Your task to perform on an android device: check battery use Image 0: 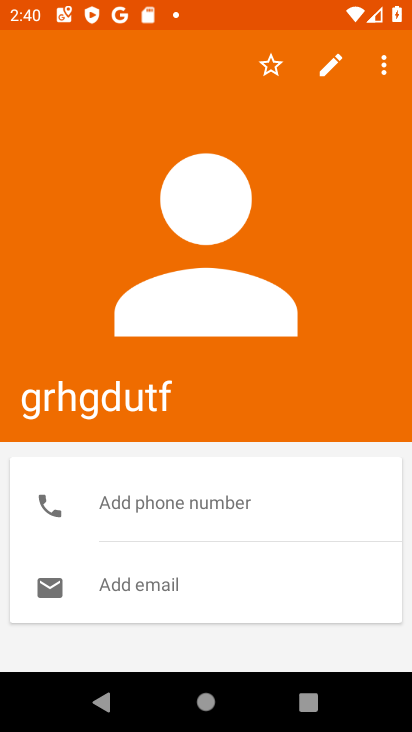
Step 0: press home button
Your task to perform on an android device: check battery use Image 1: 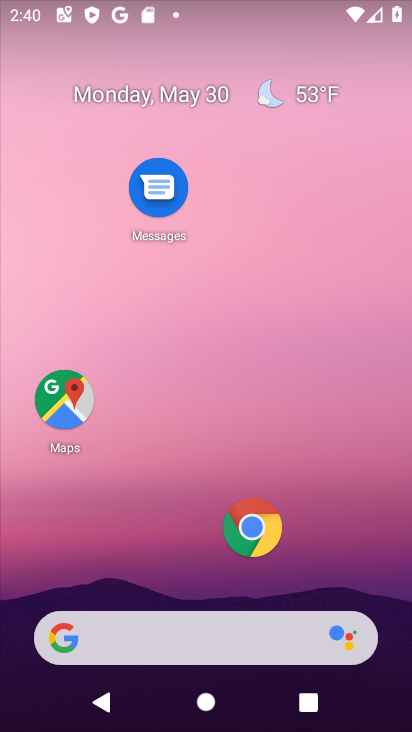
Step 1: drag from (132, 560) to (273, 83)
Your task to perform on an android device: check battery use Image 2: 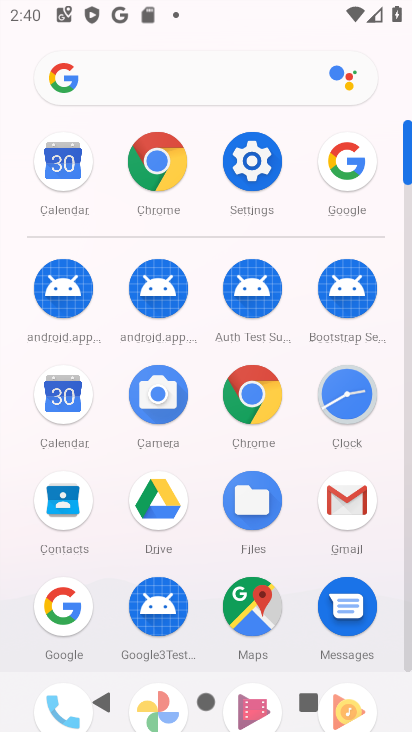
Step 2: drag from (198, 246) to (224, 0)
Your task to perform on an android device: check battery use Image 3: 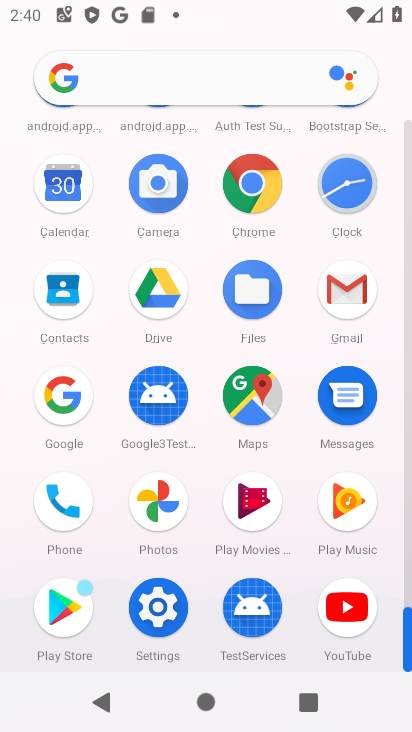
Step 3: click (159, 641)
Your task to perform on an android device: check battery use Image 4: 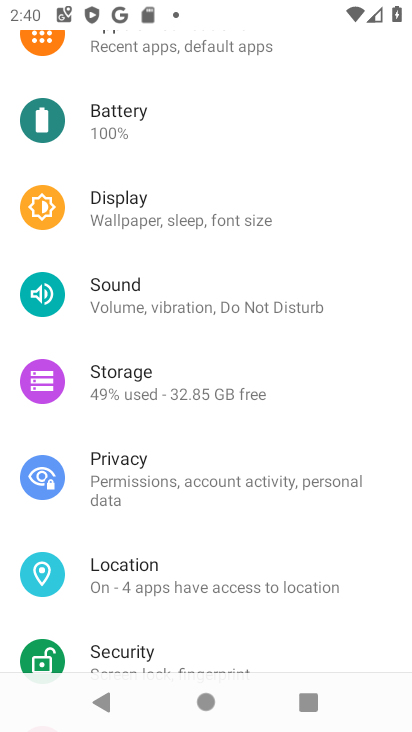
Step 4: click (144, 152)
Your task to perform on an android device: check battery use Image 5: 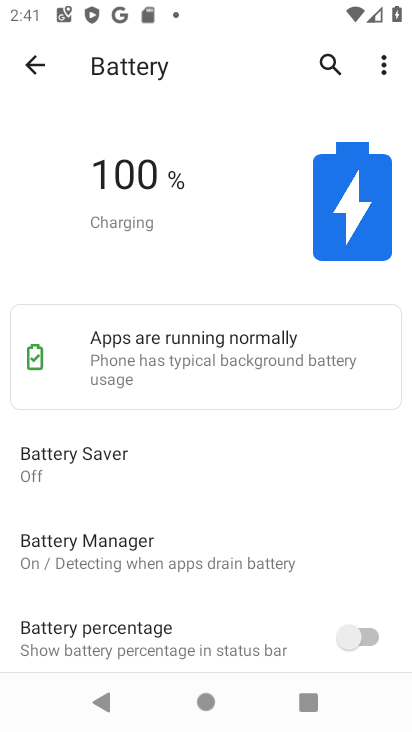
Step 5: click (389, 75)
Your task to perform on an android device: check battery use Image 6: 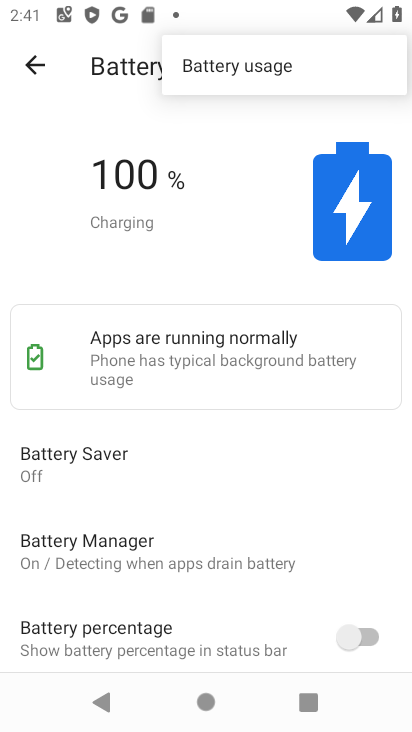
Step 6: click (294, 76)
Your task to perform on an android device: check battery use Image 7: 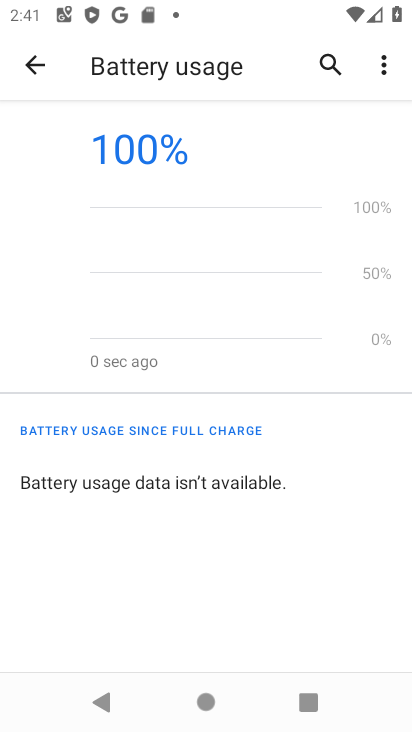
Step 7: task complete